Your task to perform on an android device: turn on sleep mode Image 0: 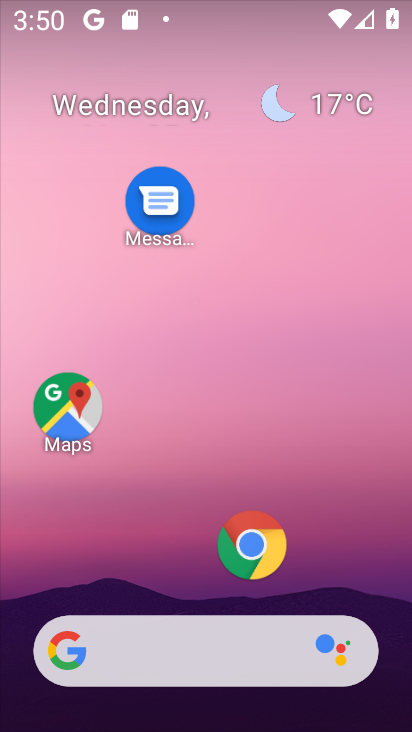
Step 0: drag from (315, 503) to (209, 90)
Your task to perform on an android device: turn on sleep mode Image 1: 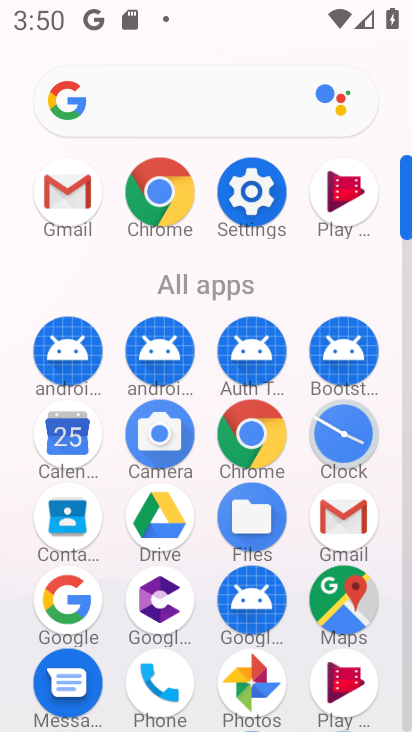
Step 1: click (260, 194)
Your task to perform on an android device: turn on sleep mode Image 2: 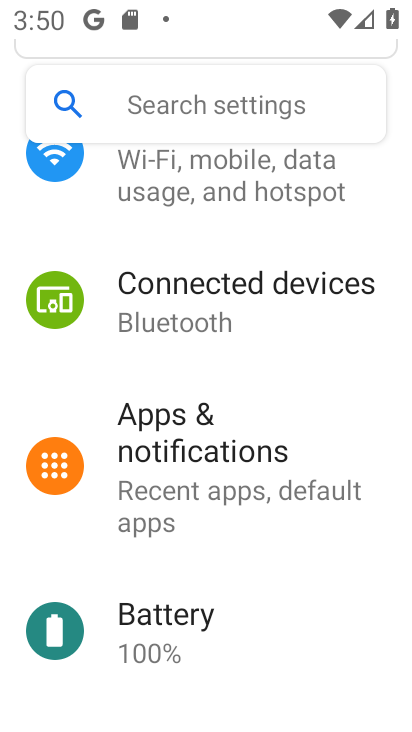
Step 2: drag from (252, 532) to (145, 139)
Your task to perform on an android device: turn on sleep mode Image 3: 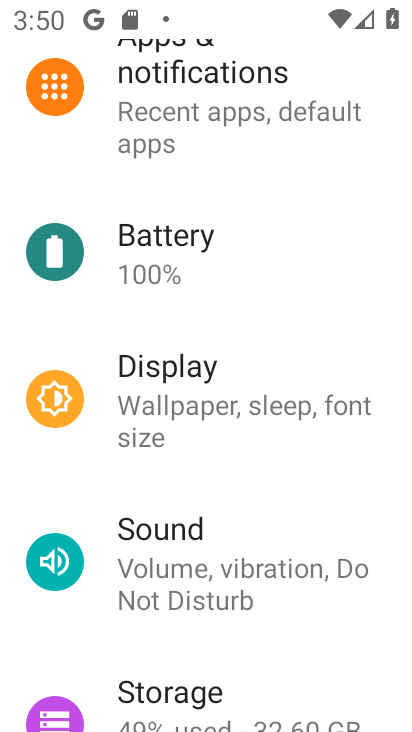
Step 3: click (197, 373)
Your task to perform on an android device: turn on sleep mode Image 4: 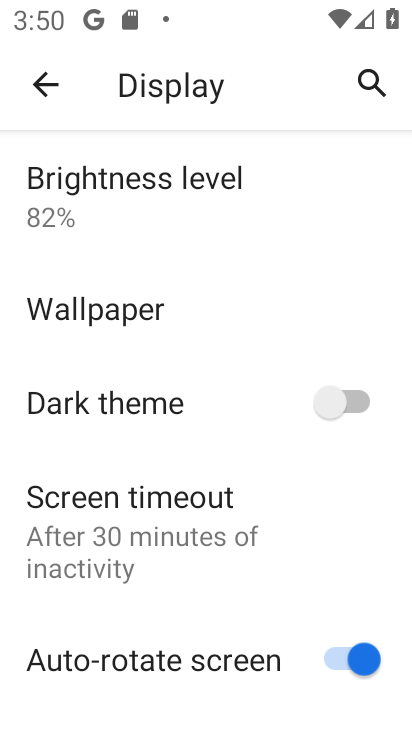
Step 4: click (150, 553)
Your task to perform on an android device: turn on sleep mode Image 5: 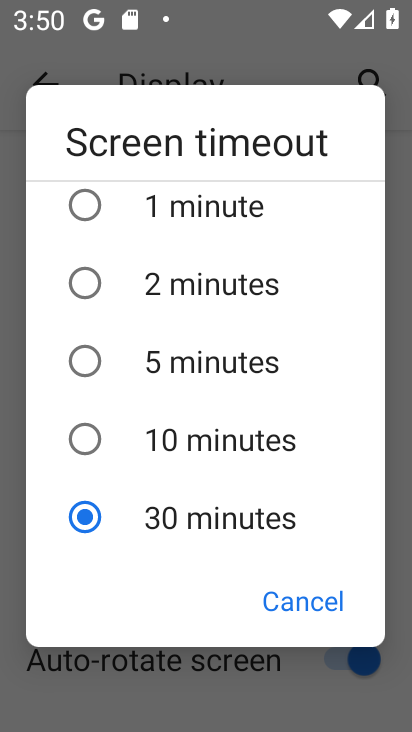
Step 5: task complete